Your task to perform on an android device: Empty the shopping cart on walmart. Search for logitech g pro on walmart, select the first entry, add it to the cart, then select checkout. Image 0: 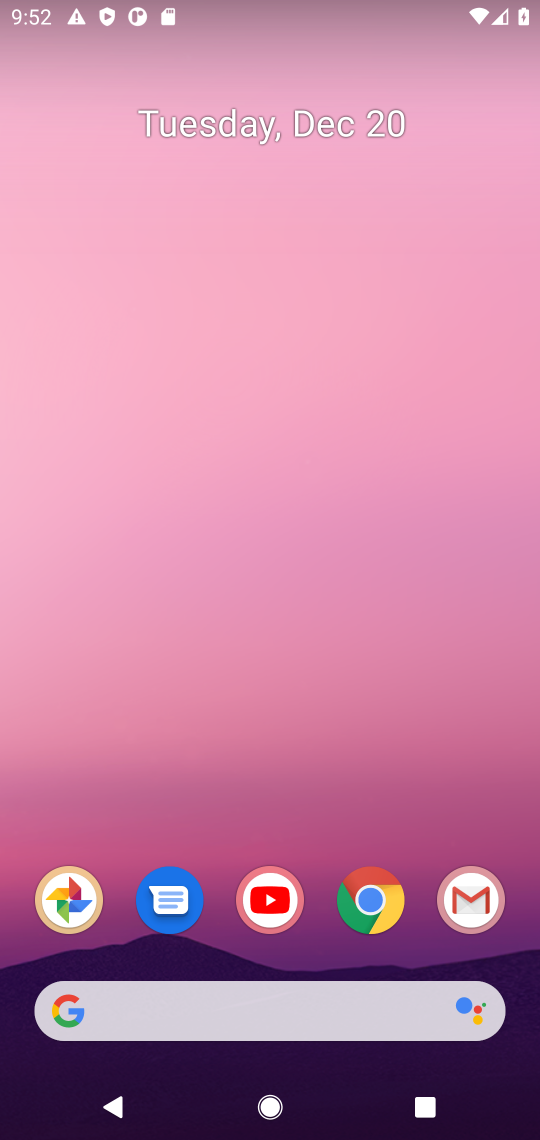
Step 0: click (376, 899)
Your task to perform on an android device: Empty the shopping cart on walmart. Search for logitech g pro on walmart, select the first entry, add it to the cart, then select checkout. Image 1: 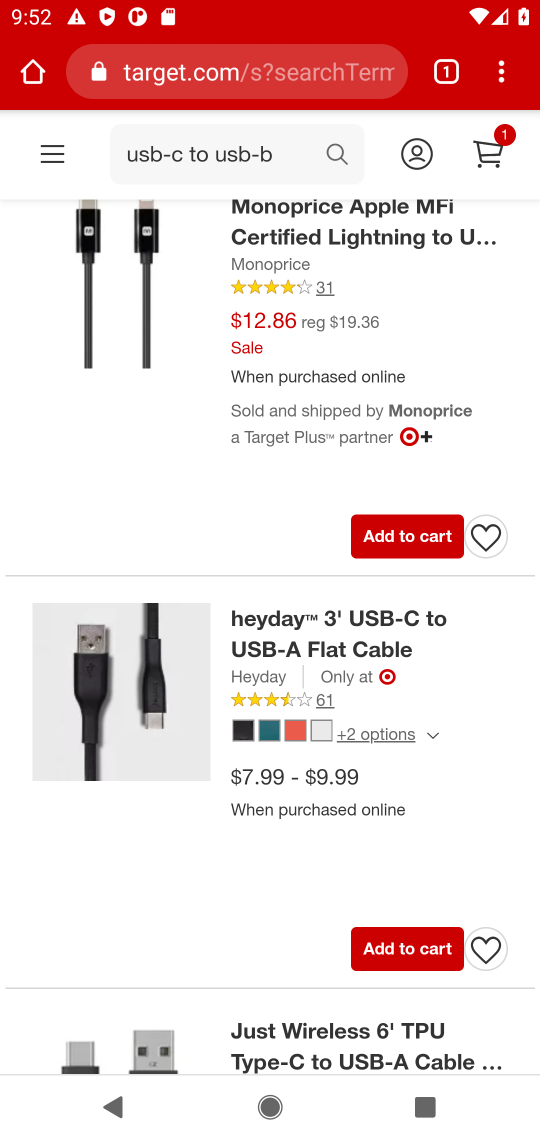
Step 1: click (231, 87)
Your task to perform on an android device: Empty the shopping cart on walmart. Search for logitech g pro on walmart, select the first entry, add it to the cart, then select checkout. Image 2: 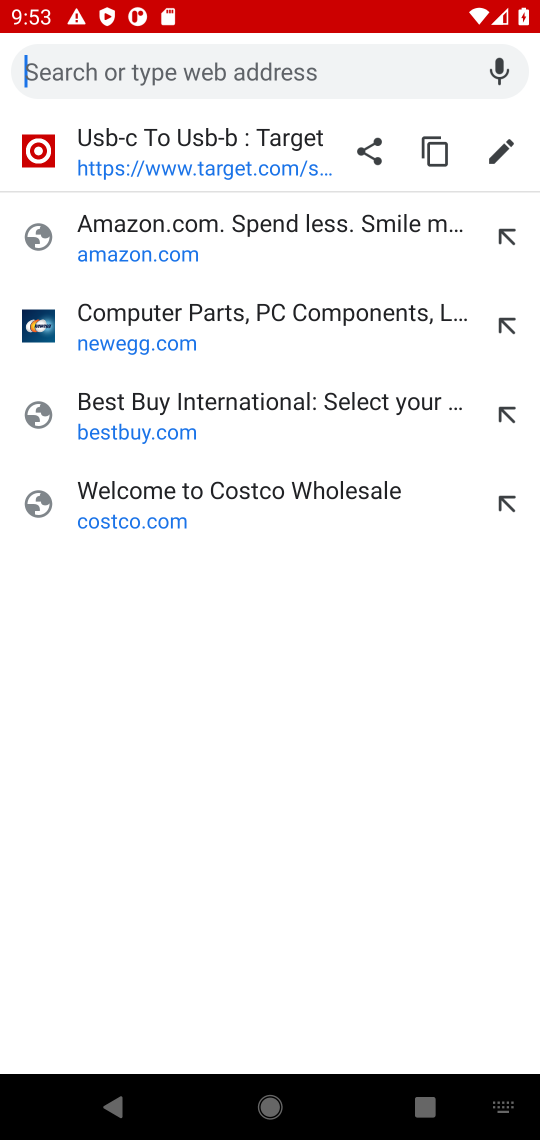
Step 2: type "walmart.com"
Your task to perform on an android device: Empty the shopping cart on walmart. Search for logitech g pro on walmart, select the first entry, add it to the cart, then select checkout. Image 3: 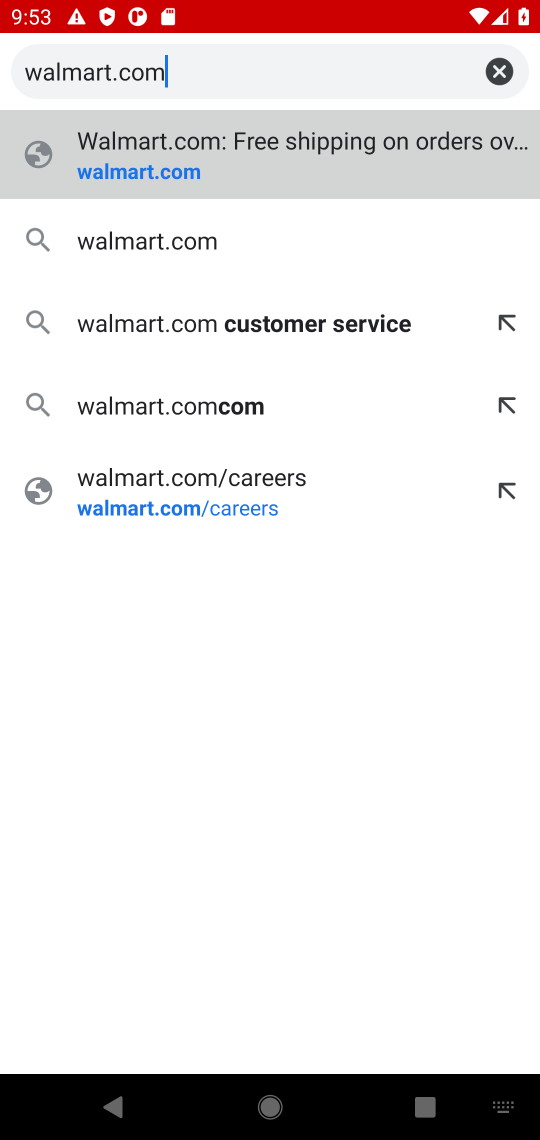
Step 3: click (110, 179)
Your task to perform on an android device: Empty the shopping cart on walmart. Search for logitech g pro on walmart, select the first entry, add it to the cart, then select checkout. Image 4: 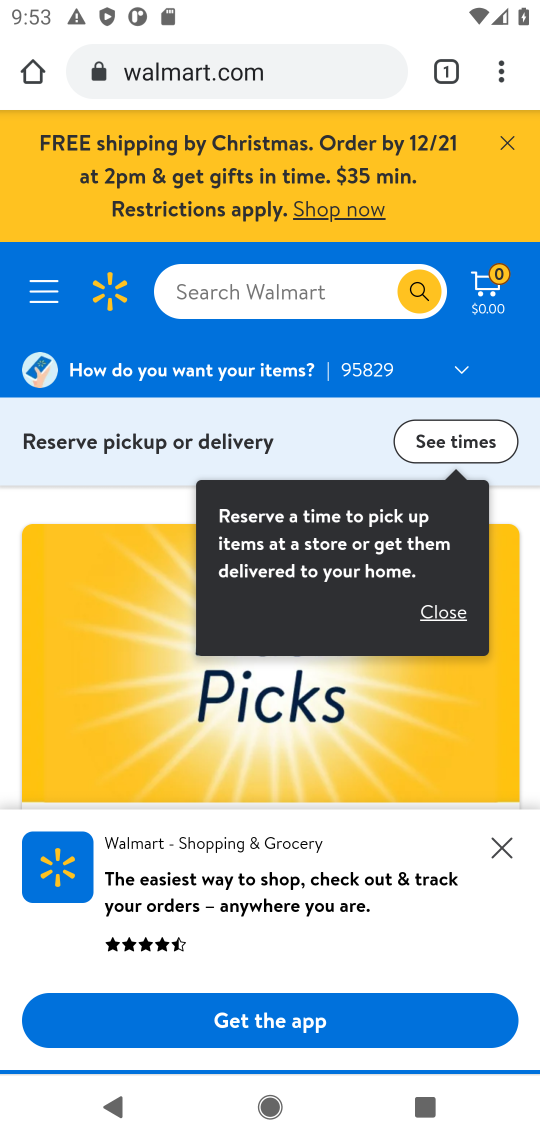
Step 4: click (494, 299)
Your task to perform on an android device: Empty the shopping cart on walmart. Search for logitech g pro on walmart, select the first entry, add it to the cart, then select checkout. Image 5: 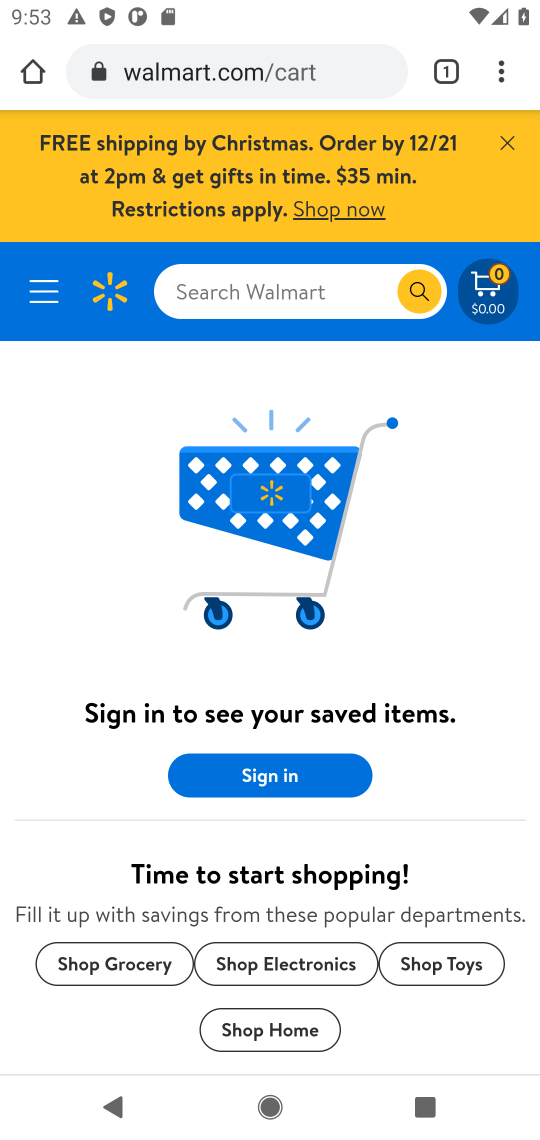
Step 5: click (219, 284)
Your task to perform on an android device: Empty the shopping cart on walmart. Search for logitech g pro on walmart, select the first entry, add it to the cart, then select checkout. Image 6: 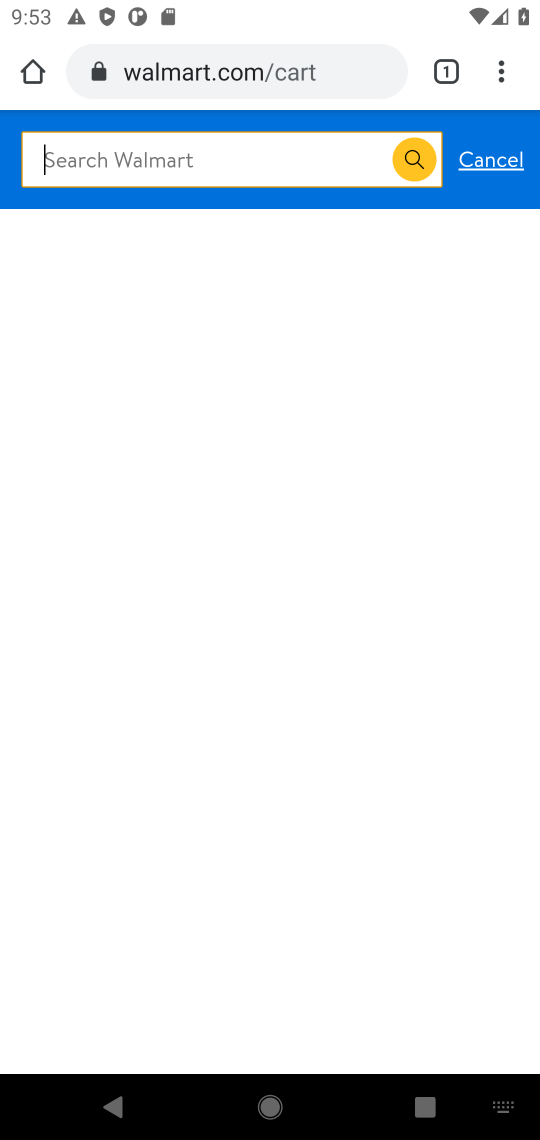
Step 6: type "logitech g pro"
Your task to perform on an android device: Empty the shopping cart on walmart. Search for logitech g pro on walmart, select the first entry, add it to the cart, then select checkout. Image 7: 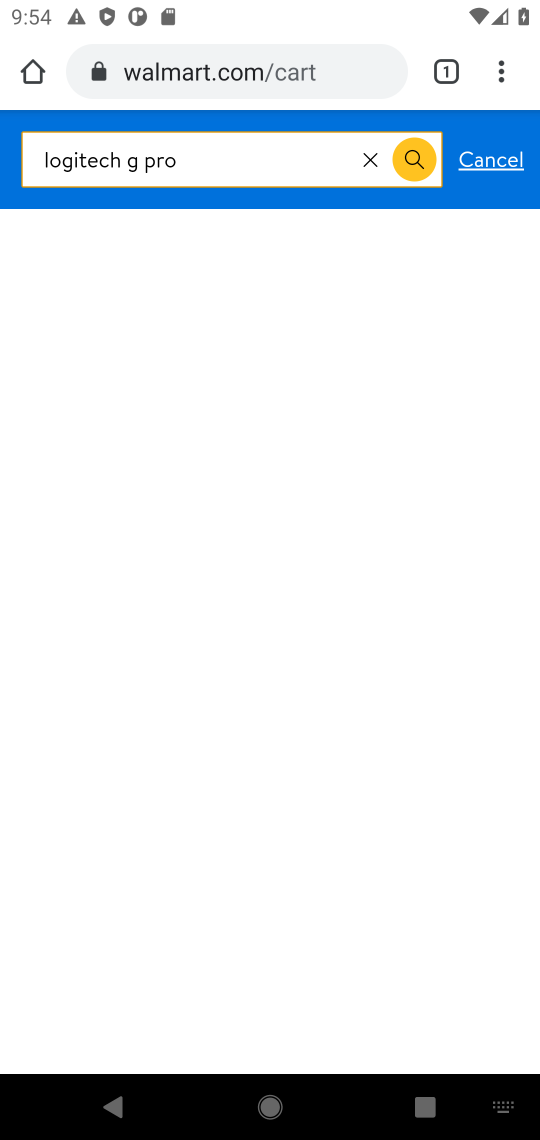
Step 7: click (418, 164)
Your task to perform on an android device: Empty the shopping cart on walmart. Search for logitech g pro on walmart, select the first entry, add it to the cart, then select checkout. Image 8: 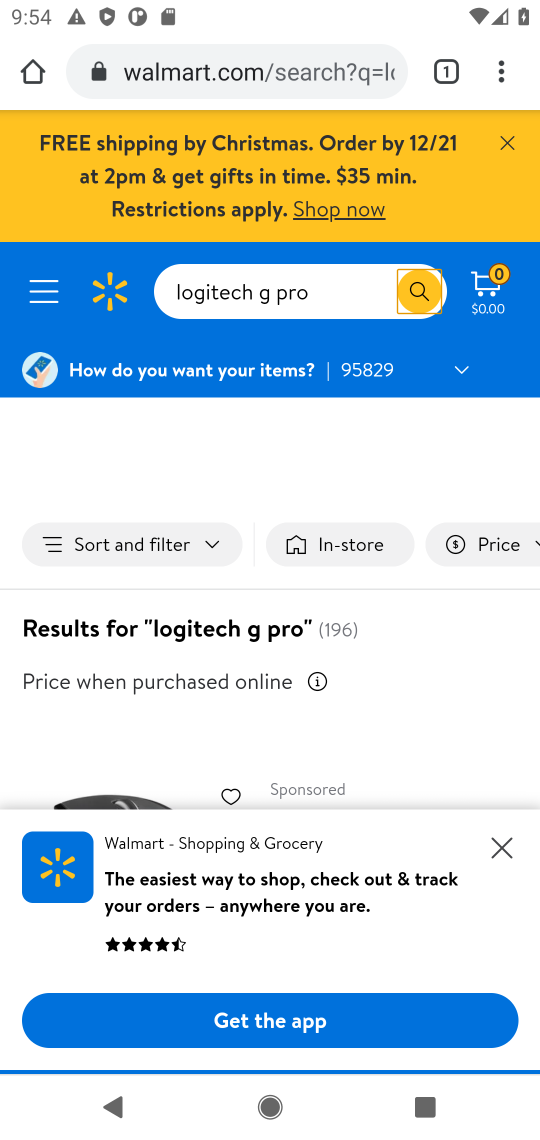
Step 8: task complete